Your task to perform on an android device: Toggle the flashlight Image 0: 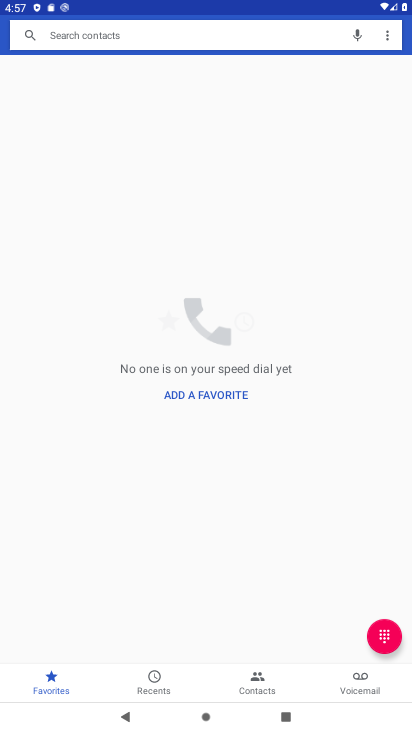
Step 0: press home button
Your task to perform on an android device: Toggle the flashlight Image 1: 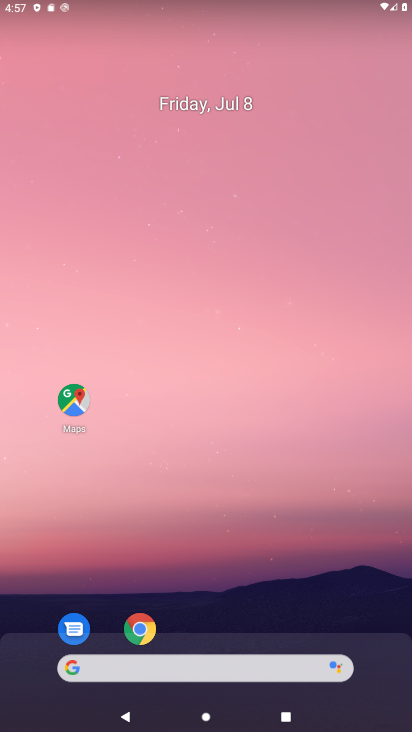
Step 1: drag from (204, 674) to (194, 16)
Your task to perform on an android device: Toggle the flashlight Image 2: 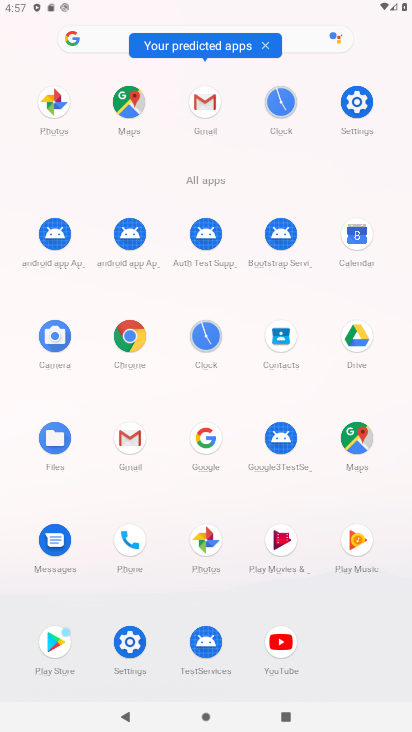
Step 2: click (355, 101)
Your task to perform on an android device: Toggle the flashlight Image 3: 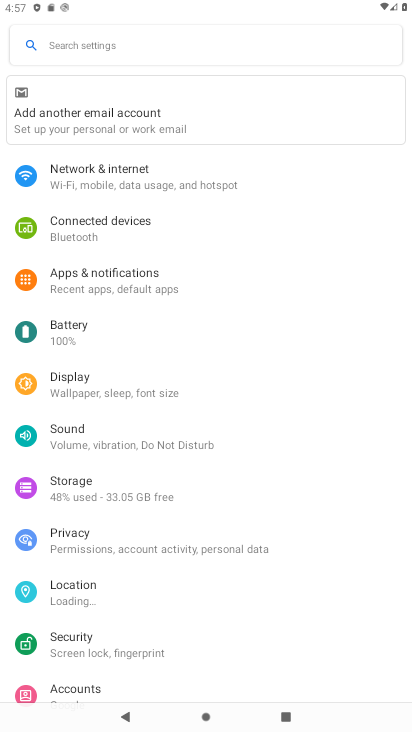
Step 3: drag from (106, 364) to (178, 265)
Your task to perform on an android device: Toggle the flashlight Image 4: 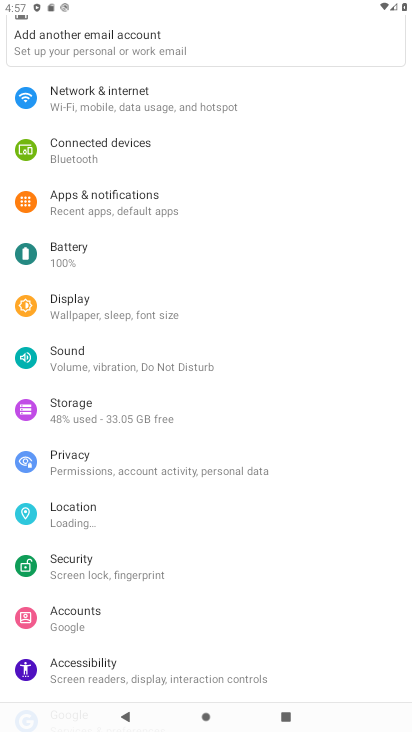
Step 4: click (133, 311)
Your task to perform on an android device: Toggle the flashlight Image 5: 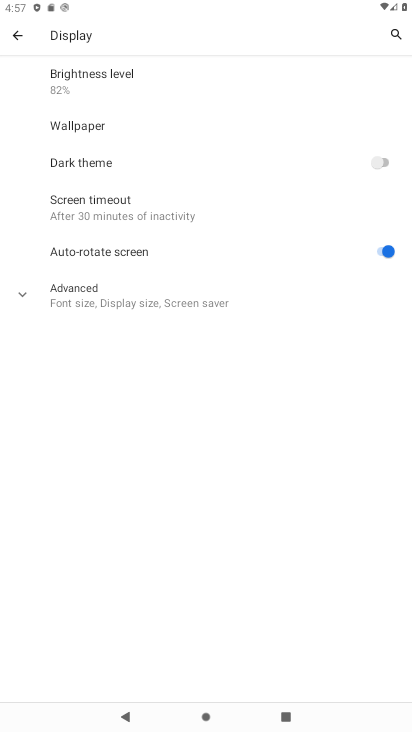
Step 5: click (129, 296)
Your task to perform on an android device: Toggle the flashlight Image 6: 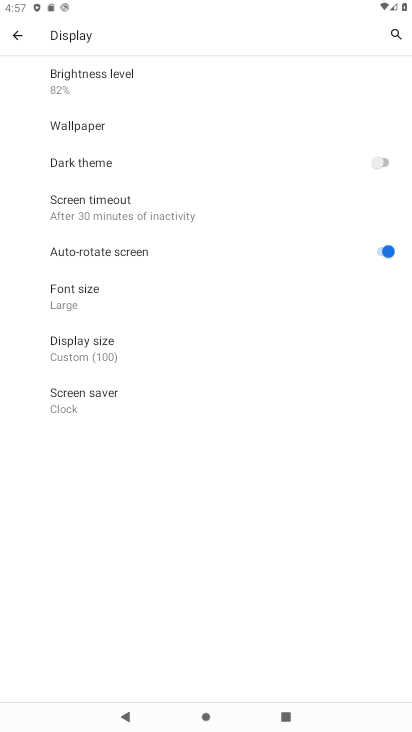
Step 6: task complete